Your task to perform on an android device: Open the calendar app, open the side menu, and click the "Day" option Image 0: 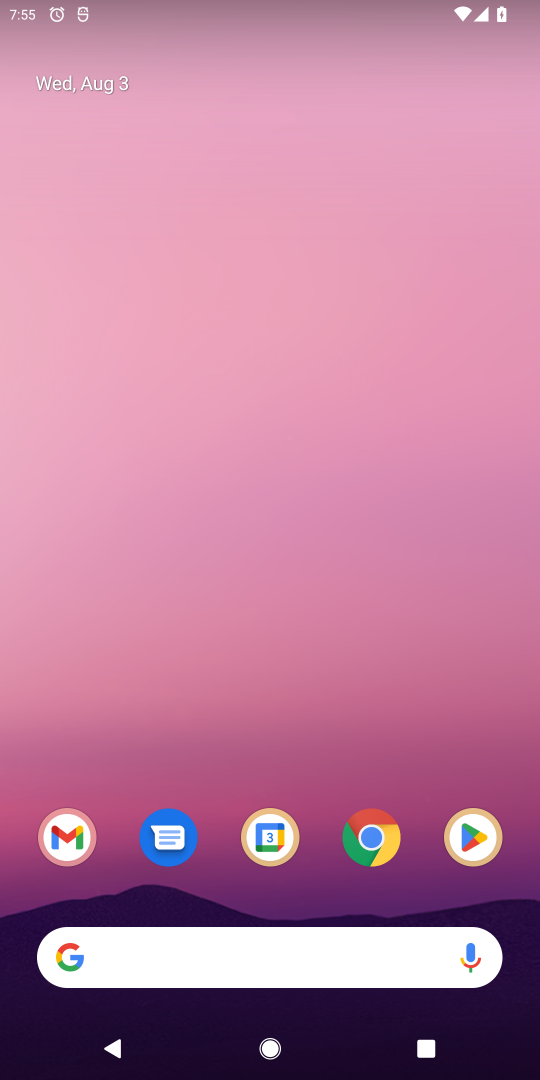
Step 0: press home button
Your task to perform on an android device: Open the calendar app, open the side menu, and click the "Day" option Image 1: 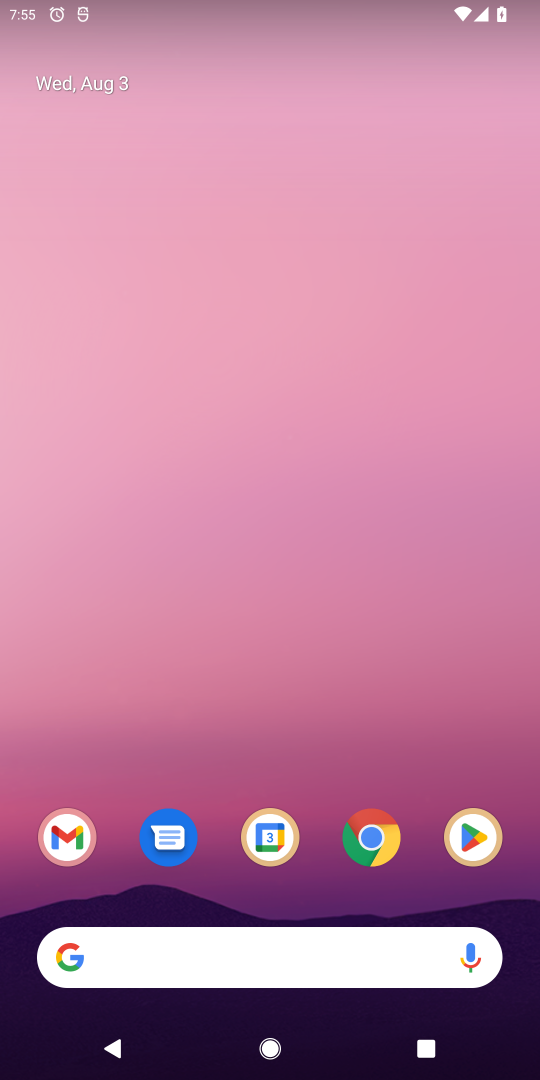
Step 1: click (264, 843)
Your task to perform on an android device: Open the calendar app, open the side menu, and click the "Day" option Image 2: 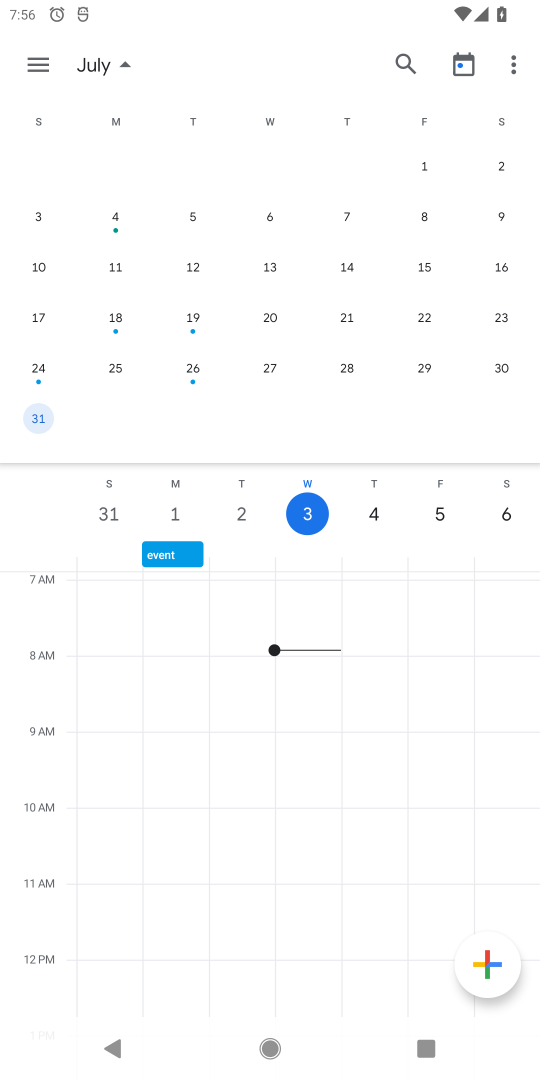
Step 2: click (35, 61)
Your task to perform on an android device: Open the calendar app, open the side menu, and click the "Day" option Image 3: 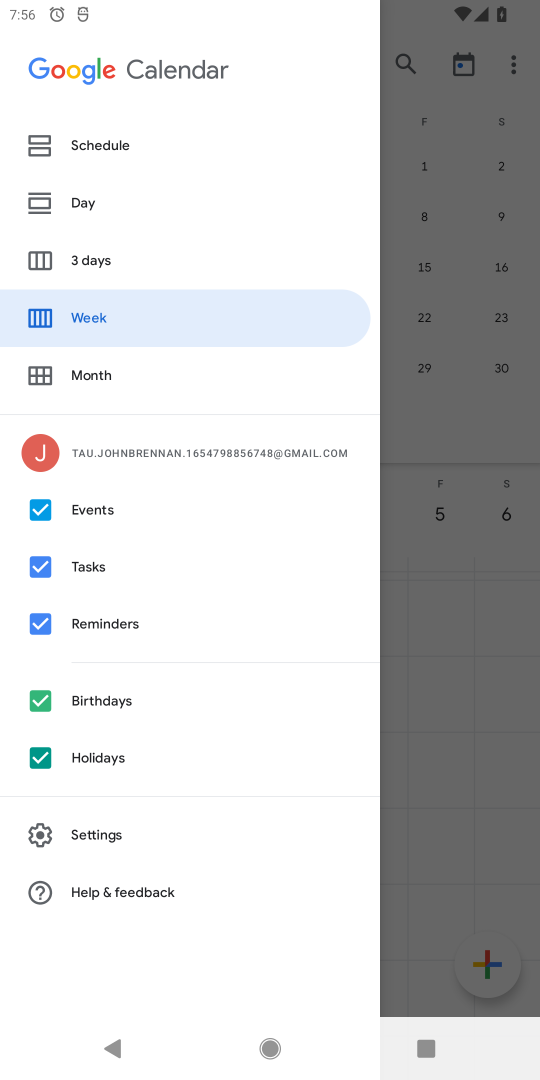
Step 3: click (87, 211)
Your task to perform on an android device: Open the calendar app, open the side menu, and click the "Day" option Image 4: 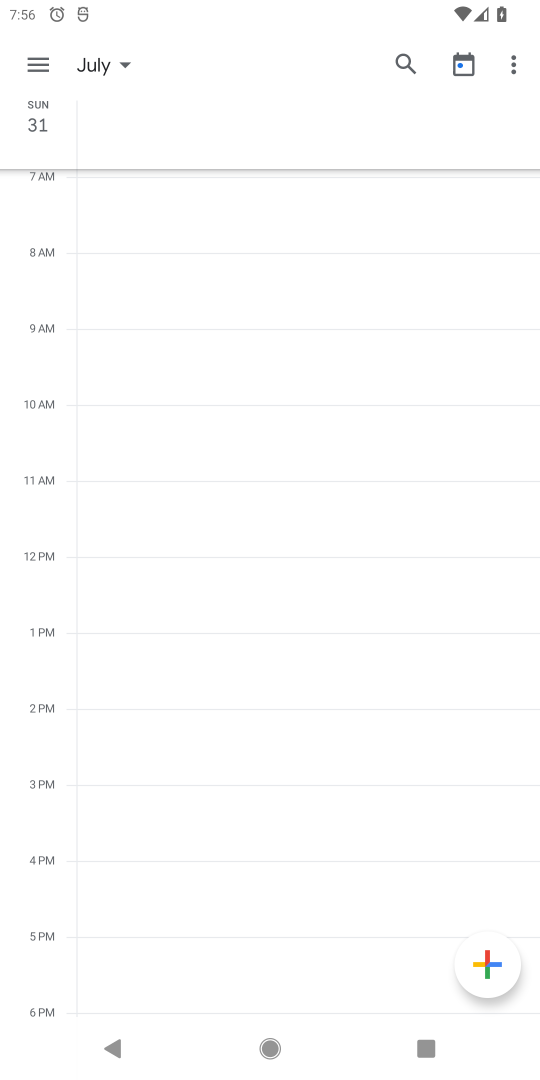
Step 4: task complete